Your task to perform on an android device: Find coffee shops on Maps Image 0: 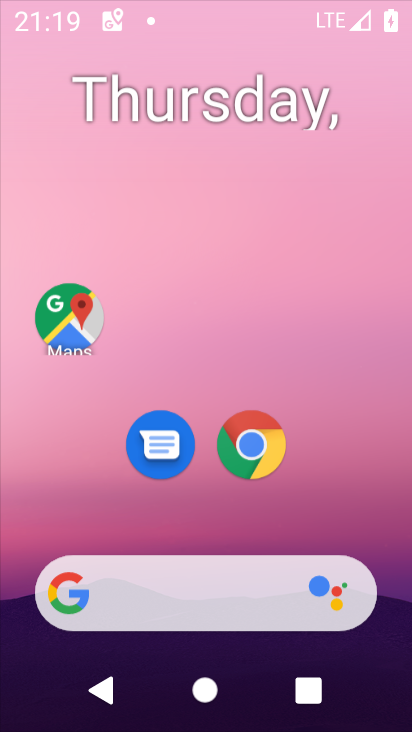
Step 0: click (378, 66)
Your task to perform on an android device: Find coffee shops on Maps Image 1: 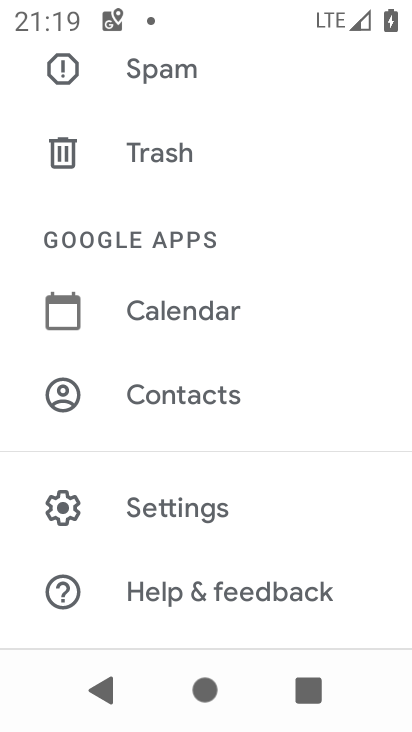
Step 1: press back button
Your task to perform on an android device: Find coffee shops on Maps Image 2: 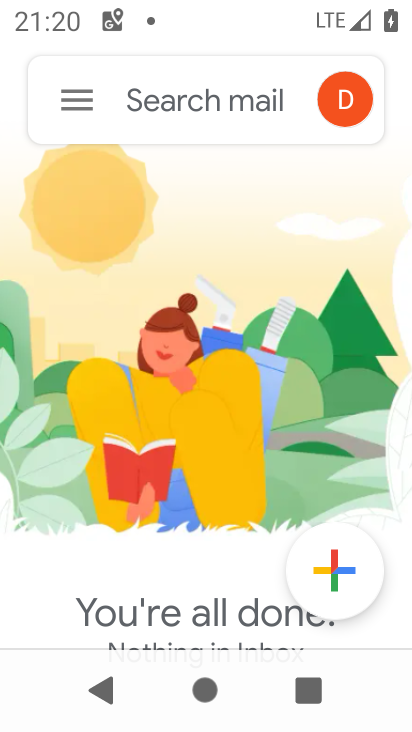
Step 2: press home button
Your task to perform on an android device: Find coffee shops on Maps Image 3: 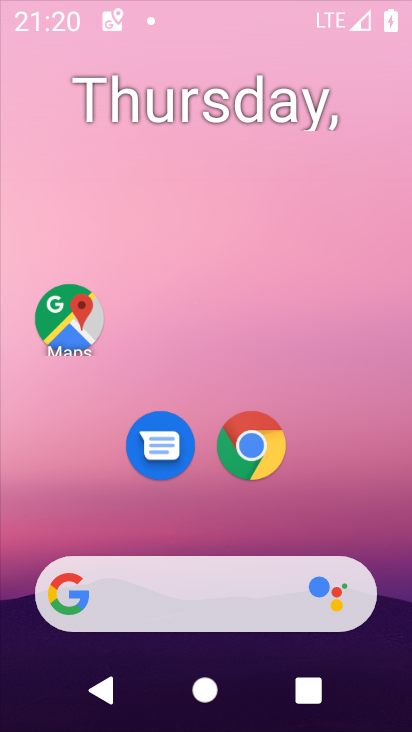
Step 3: drag from (223, 587) to (260, 68)
Your task to perform on an android device: Find coffee shops on Maps Image 4: 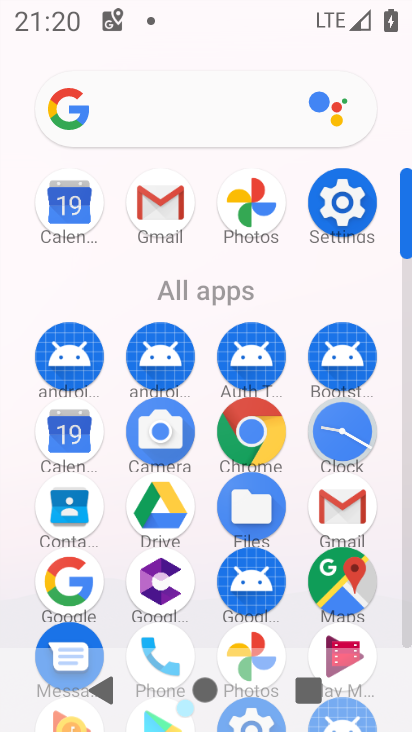
Step 4: click (163, 115)
Your task to perform on an android device: Find coffee shops on Maps Image 5: 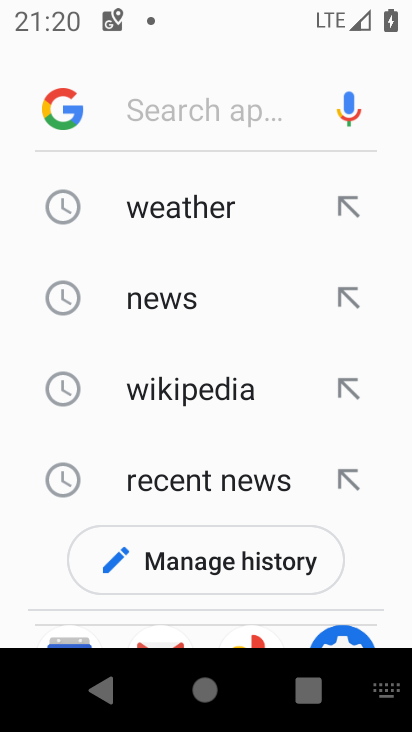
Step 5: drag from (253, 503) to (298, 201)
Your task to perform on an android device: Find coffee shops on Maps Image 6: 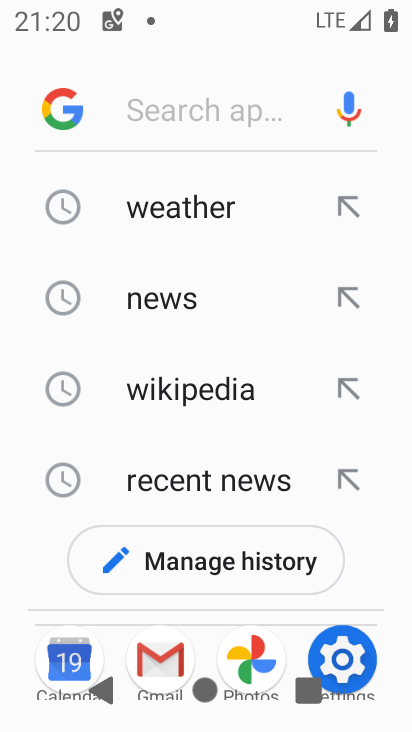
Step 6: press home button
Your task to perform on an android device: Find coffee shops on Maps Image 7: 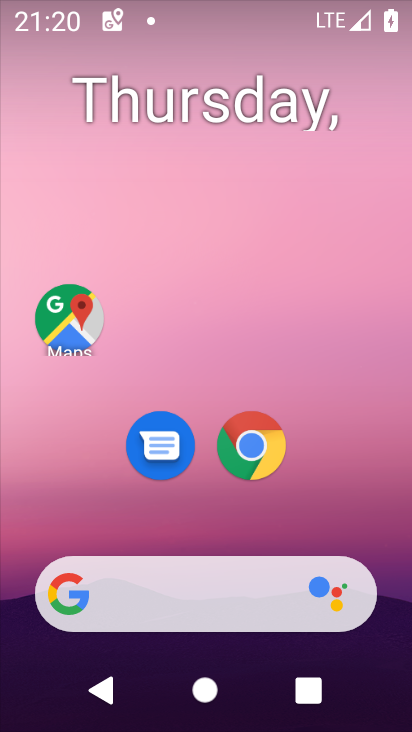
Step 7: drag from (171, 596) to (280, 132)
Your task to perform on an android device: Find coffee shops on Maps Image 8: 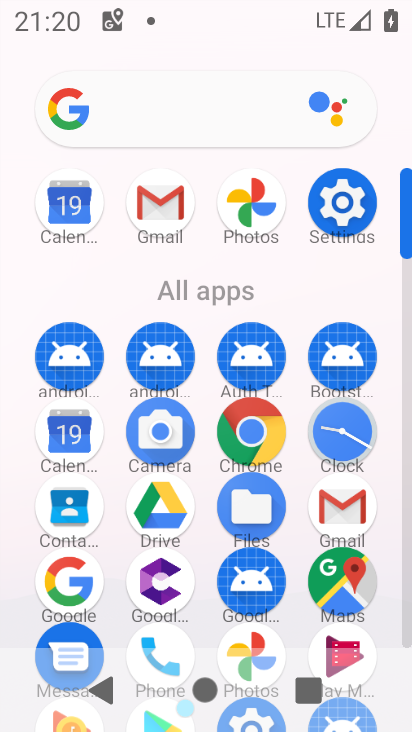
Step 8: click (343, 566)
Your task to perform on an android device: Find coffee shops on Maps Image 9: 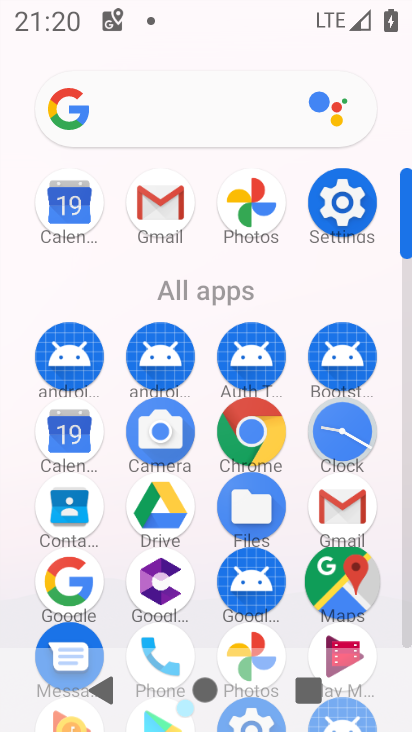
Step 9: click (343, 566)
Your task to perform on an android device: Find coffee shops on Maps Image 10: 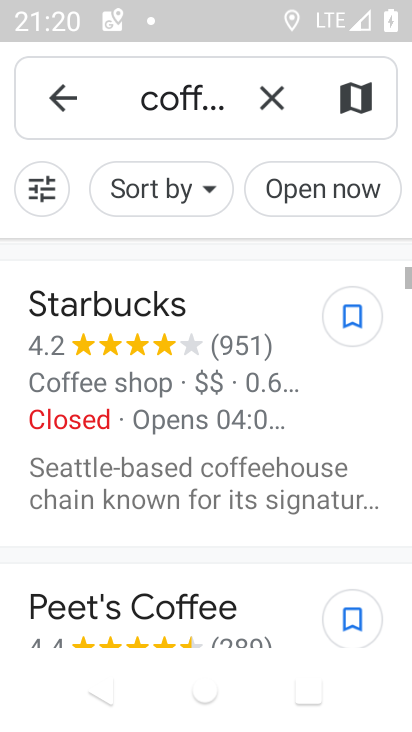
Step 10: task complete